Your task to perform on an android device: see tabs open on other devices in the chrome app Image 0: 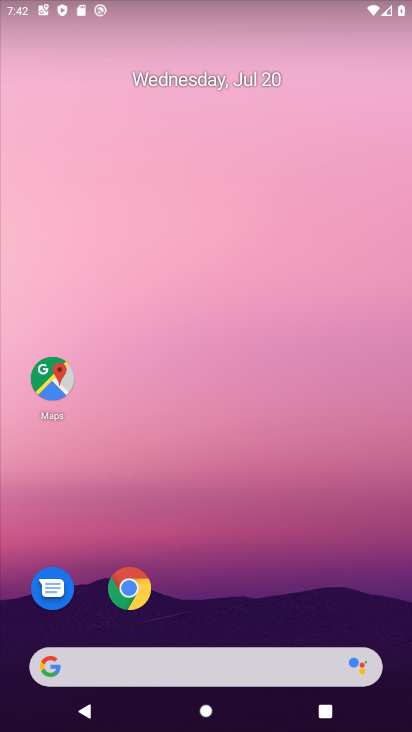
Step 0: click (114, 608)
Your task to perform on an android device: see tabs open on other devices in the chrome app Image 1: 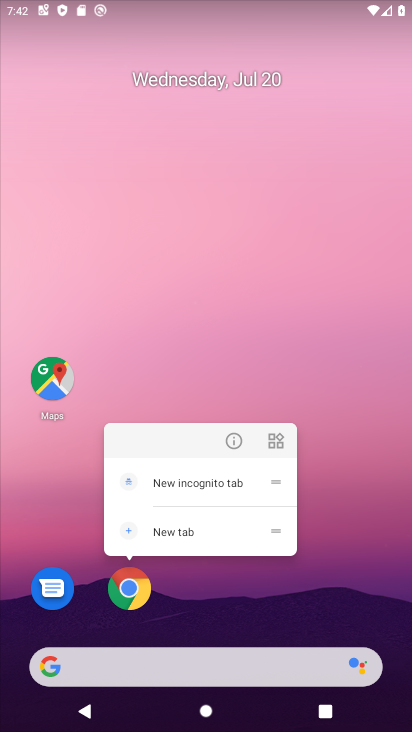
Step 1: click (114, 608)
Your task to perform on an android device: see tabs open on other devices in the chrome app Image 2: 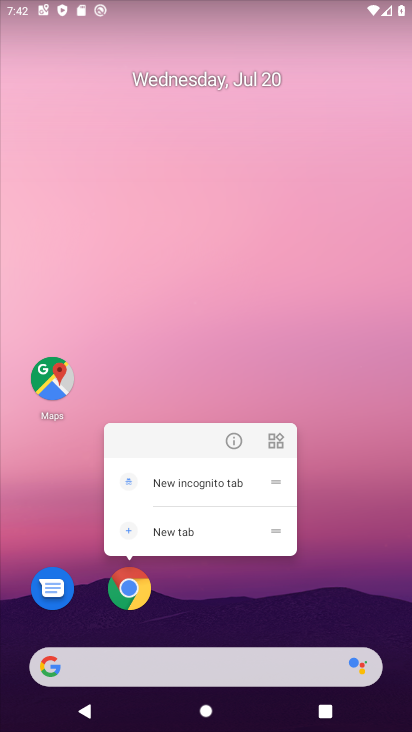
Step 2: click (114, 608)
Your task to perform on an android device: see tabs open on other devices in the chrome app Image 3: 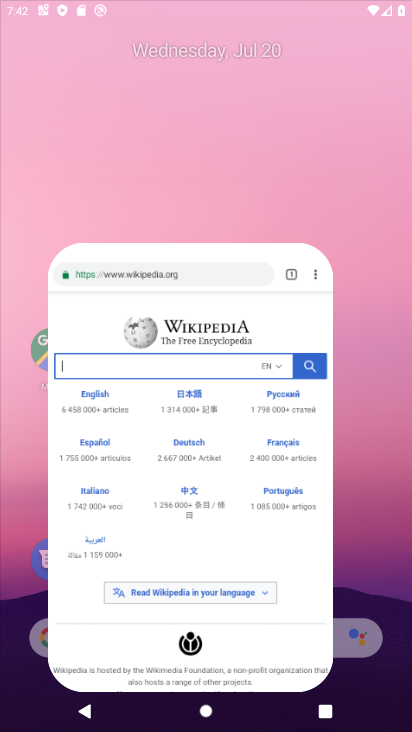
Step 3: click (114, 608)
Your task to perform on an android device: see tabs open on other devices in the chrome app Image 4: 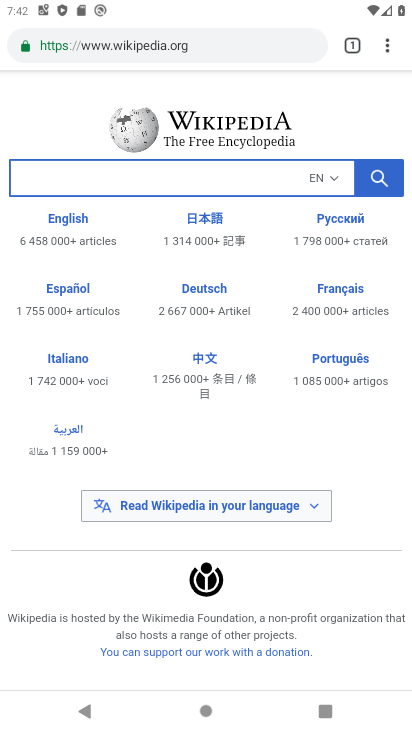
Step 4: click (384, 50)
Your task to perform on an android device: see tabs open on other devices in the chrome app Image 5: 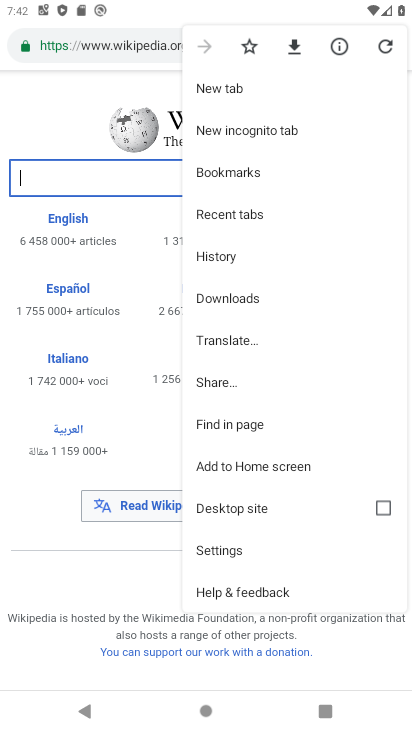
Step 5: click (228, 216)
Your task to perform on an android device: see tabs open on other devices in the chrome app Image 6: 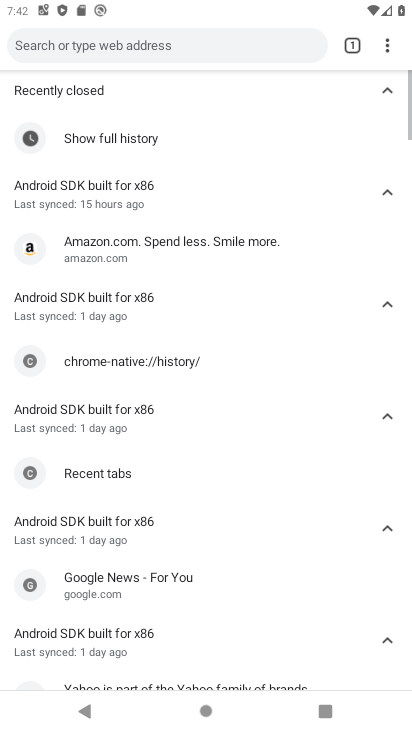
Step 6: task complete